Your task to perform on an android device: turn off javascript in the chrome app Image 0: 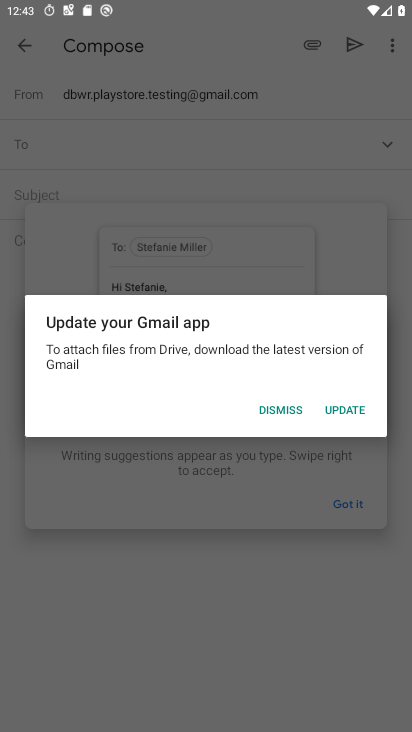
Step 0: press home button
Your task to perform on an android device: turn off javascript in the chrome app Image 1: 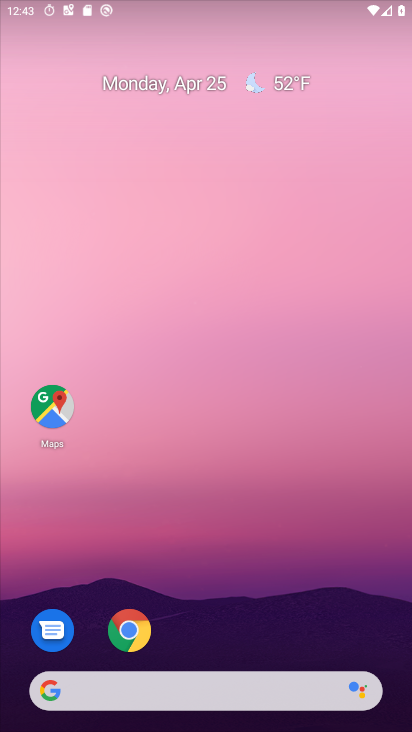
Step 1: drag from (256, 530) to (227, 6)
Your task to perform on an android device: turn off javascript in the chrome app Image 2: 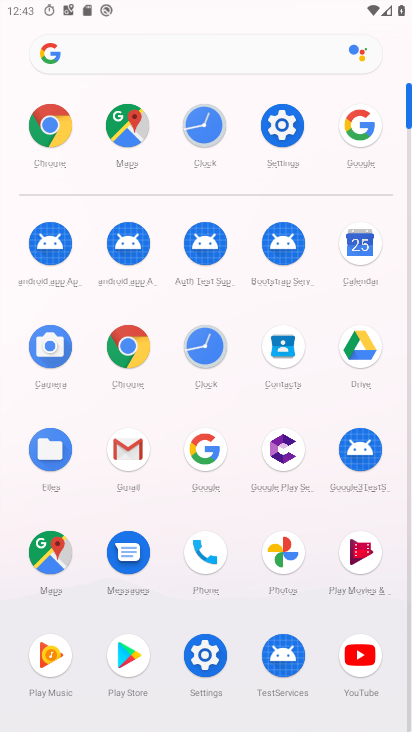
Step 2: click (127, 332)
Your task to perform on an android device: turn off javascript in the chrome app Image 3: 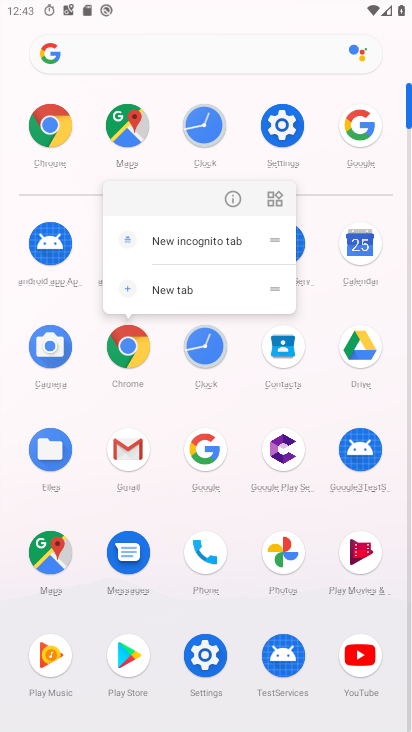
Step 3: click (223, 193)
Your task to perform on an android device: turn off javascript in the chrome app Image 4: 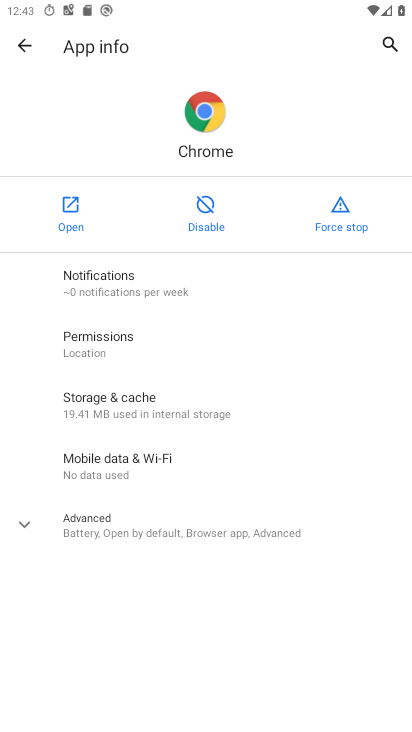
Step 4: click (92, 205)
Your task to perform on an android device: turn off javascript in the chrome app Image 5: 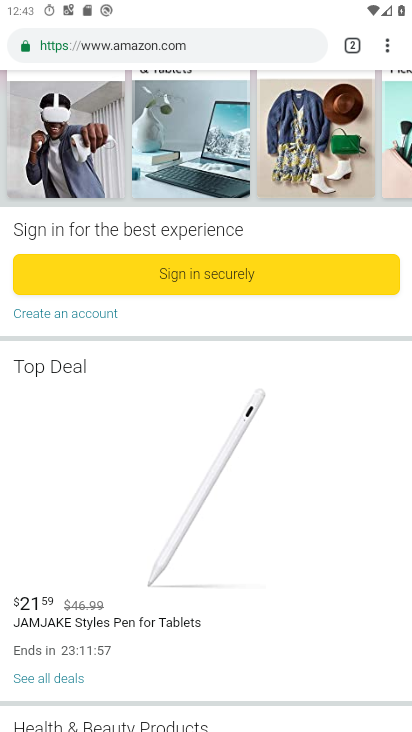
Step 5: drag from (171, 558) to (245, 251)
Your task to perform on an android device: turn off javascript in the chrome app Image 6: 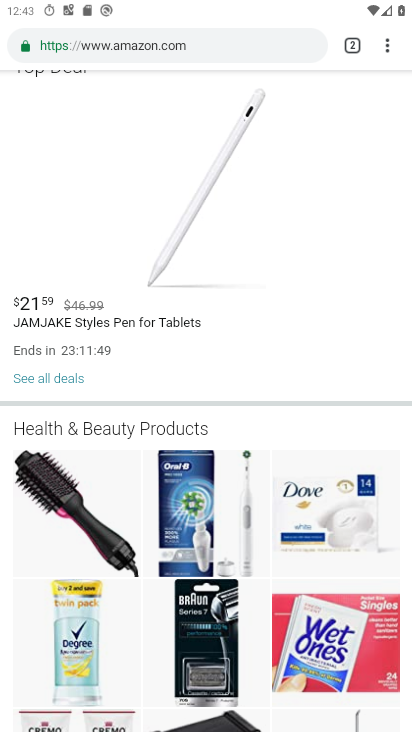
Step 6: drag from (393, 50) to (276, 601)
Your task to perform on an android device: turn off javascript in the chrome app Image 7: 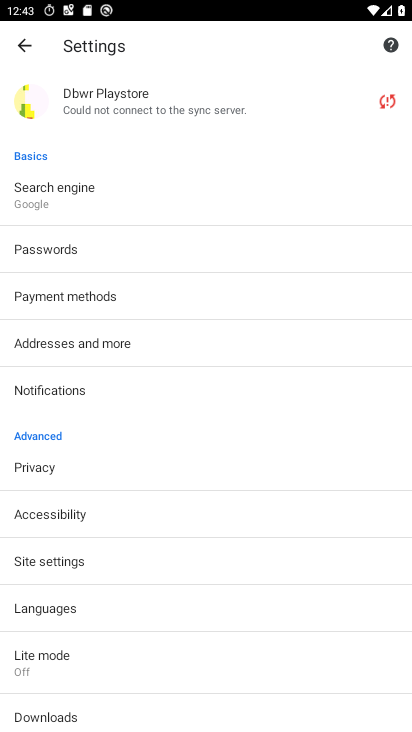
Step 7: click (130, 561)
Your task to perform on an android device: turn off javascript in the chrome app Image 8: 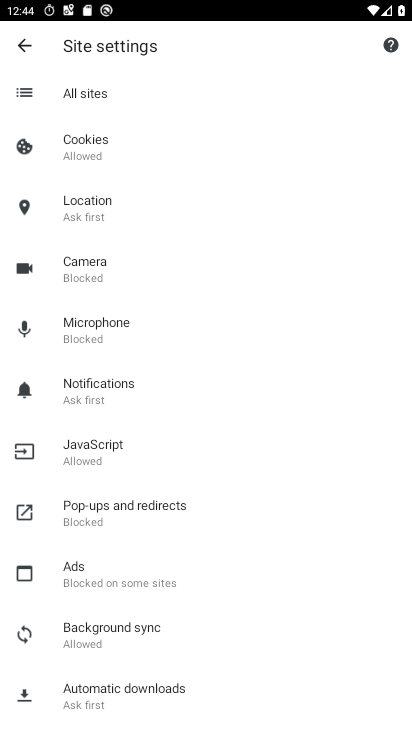
Step 8: click (141, 441)
Your task to perform on an android device: turn off javascript in the chrome app Image 9: 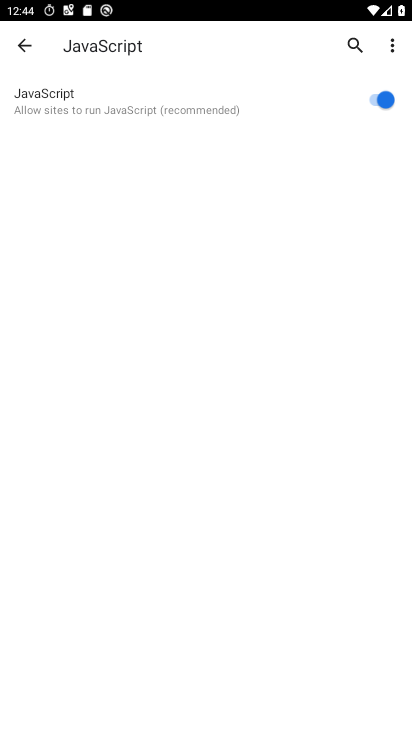
Step 9: click (371, 101)
Your task to perform on an android device: turn off javascript in the chrome app Image 10: 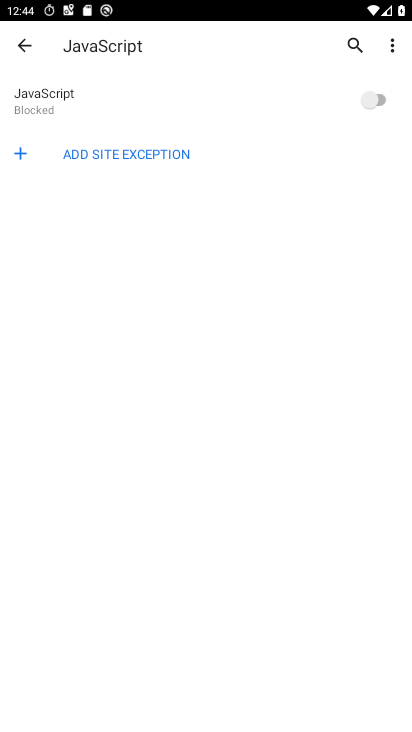
Step 10: task complete